Your task to perform on an android device: Search for seafood restaurants on Google Maps Image 0: 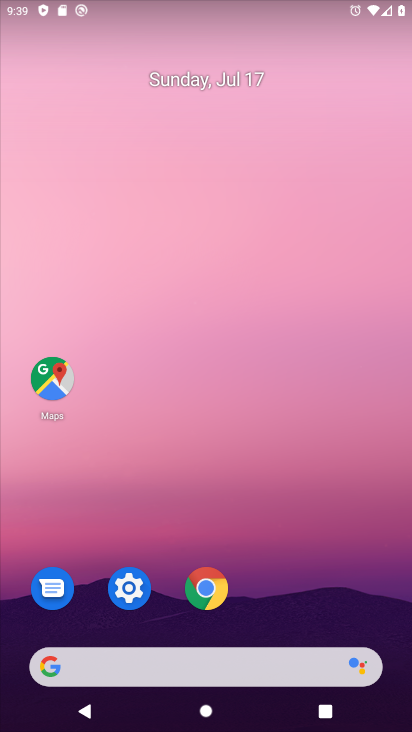
Step 0: drag from (295, 658) to (309, 23)
Your task to perform on an android device: Search for seafood restaurants on Google Maps Image 1: 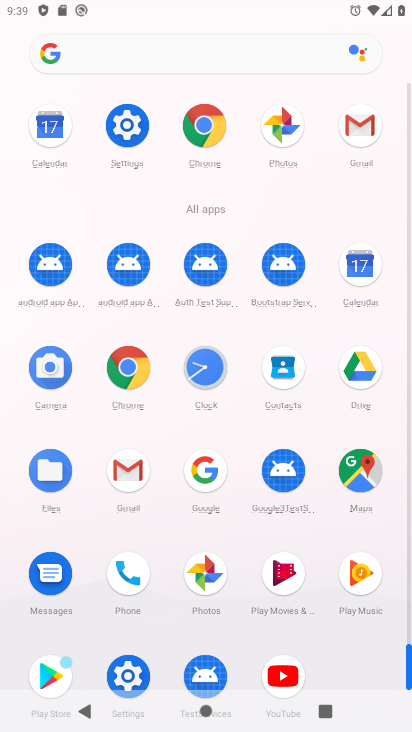
Step 1: click (351, 474)
Your task to perform on an android device: Search for seafood restaurants on Google Maps Image 2: 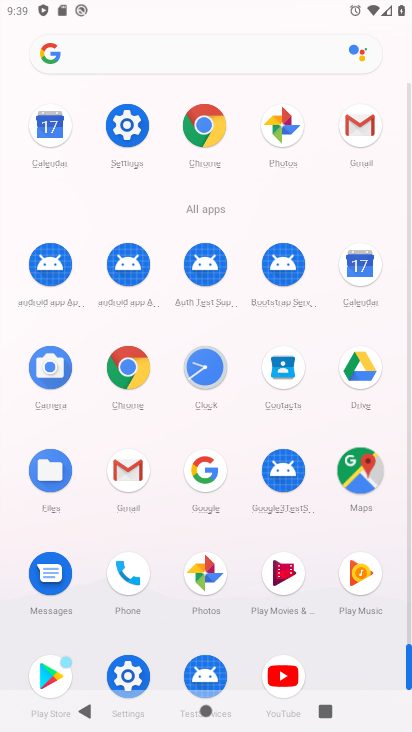
Step 2: click (353, 475)
Your task to perform on an android device: Search for seafood restaurants on Google Maps Image 3: 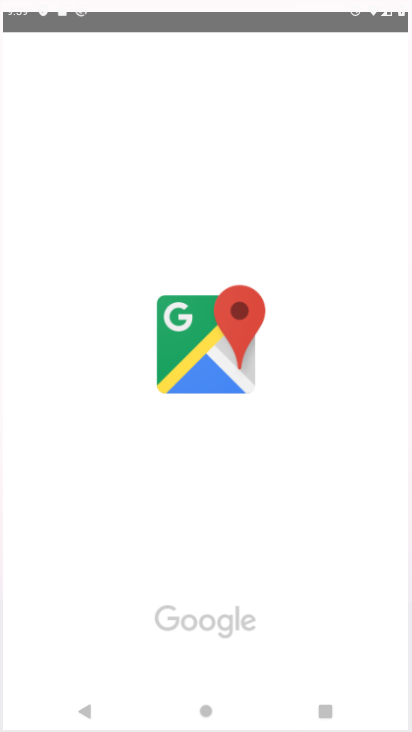
Step 3: click (360, 490)
Your task to perform on an android device: Search for seafood restaurants on Google Maps Image 4: 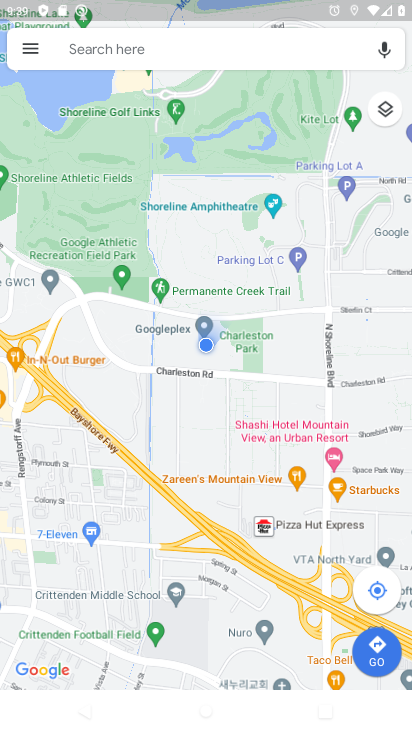
Step 4: click (105, 56)
Your task to perform on an android device: Search for seafood restaurants on Google Maps Image 5: 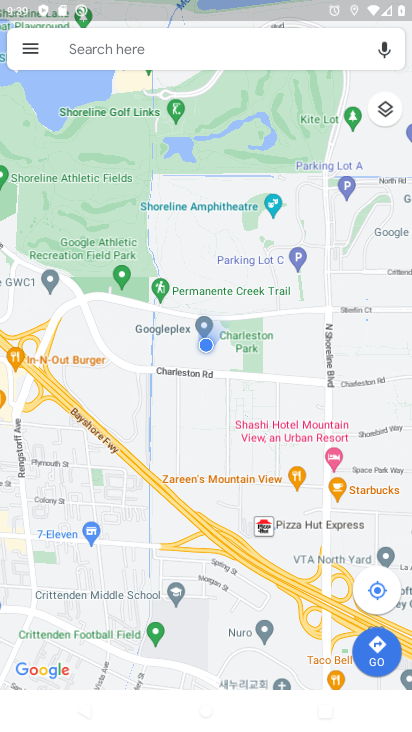
Step 5: click (105, 56)
Your task to perform on an android device: Search for seafood restaurants on Google Maps Image 6: 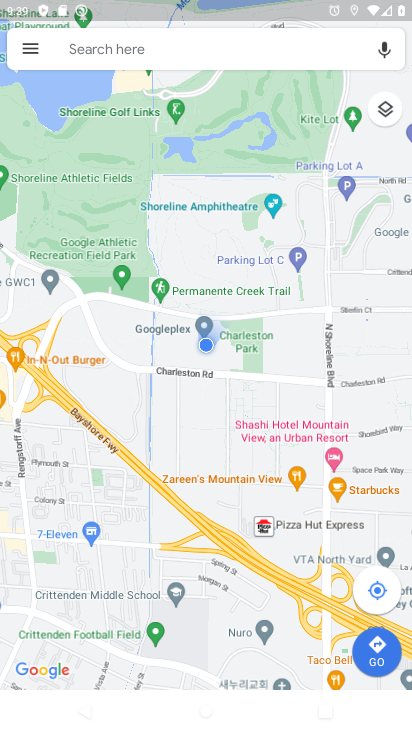
Step 6: click (106, 58)
Your task to perform on an android device: Search for seafood restaurants on Google Maps Image 7: 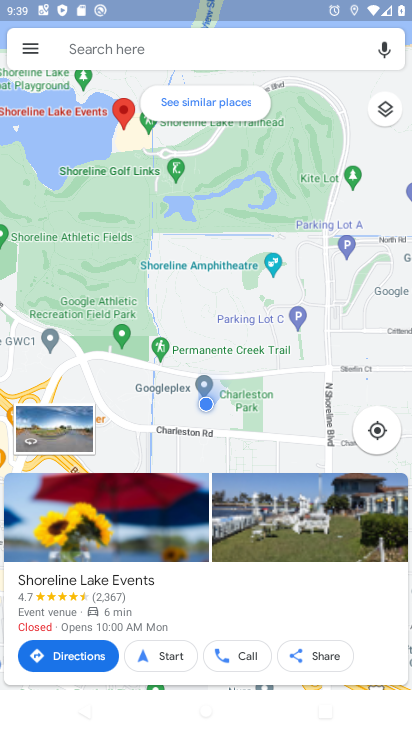
Step 7: type "seafood restaurants"
Your task to perform on an android device: Search for seafood restaurants on Google Maps Image 8: 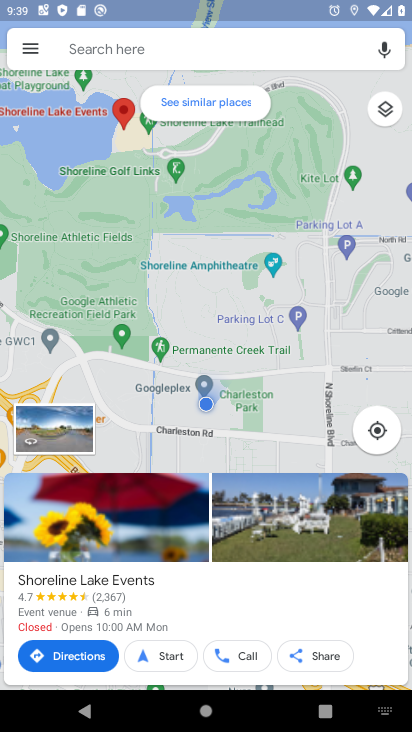
Step 8: click (160, 48)
Your task to perform on an android device: Search for seafood restaurants on Google Maps Image 9: 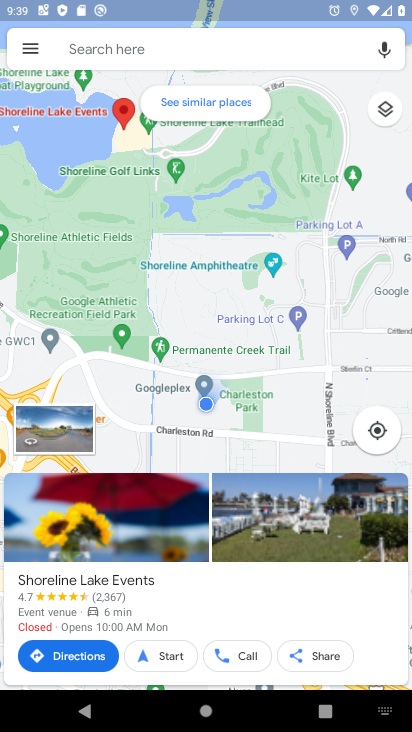
Step 9: drag from (171, 51) to (202, 72)
Your task to perform on an android device: Search for seafood restaurants on Google Maps Image 10: 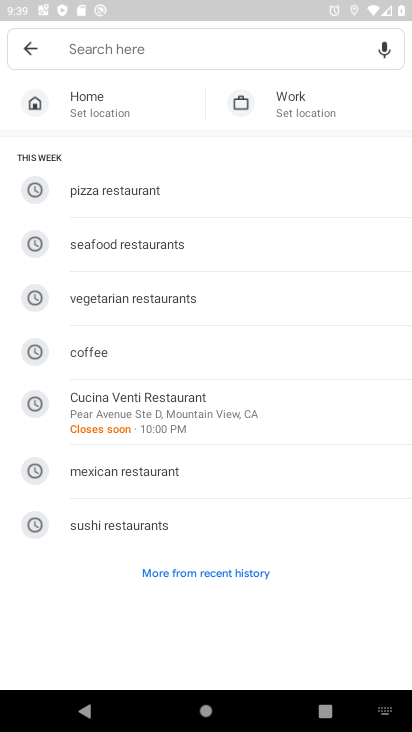
Step 10: click (170, 245)
Your task to perform on an android device: Search for seafood restaurants on Google Maps Image 11: 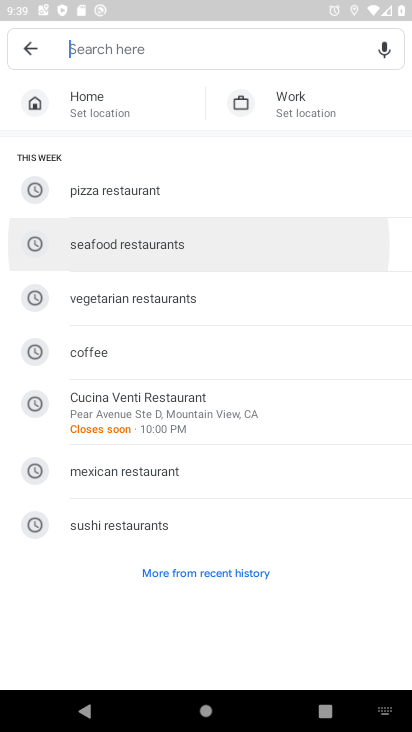
Step 11: task complete